Your task to perform on an android device: add a label to a message in the gmail app Image 0: 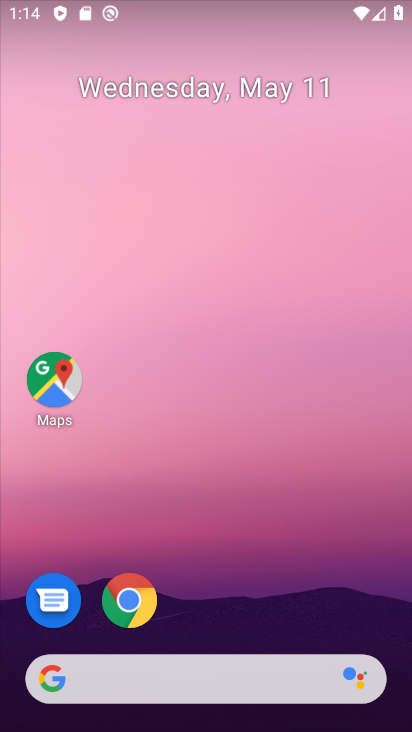
Step 0: drag from (234, 624) to (244, 276)
Your task to perform on an android device: add a label to a message in the gmail app Image 1: 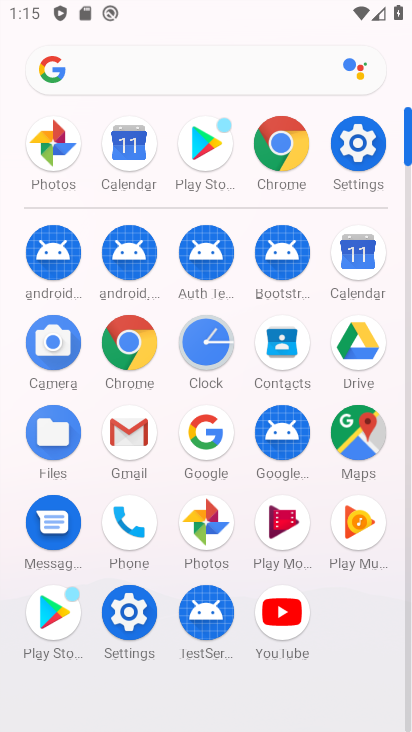
Step 1: click (125, 428)
Your task to perform on an android device: add a label to a message in the gmail app Image 2: 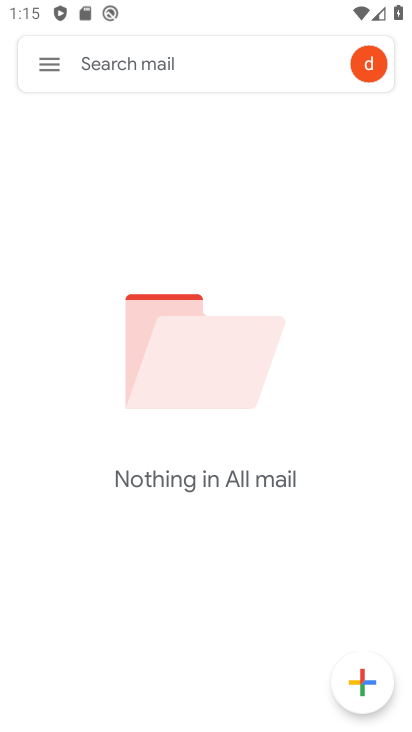
Step 2: click (46, 65)
Your task to perform on an android device: add a label to a message in the gmail app Image 3: 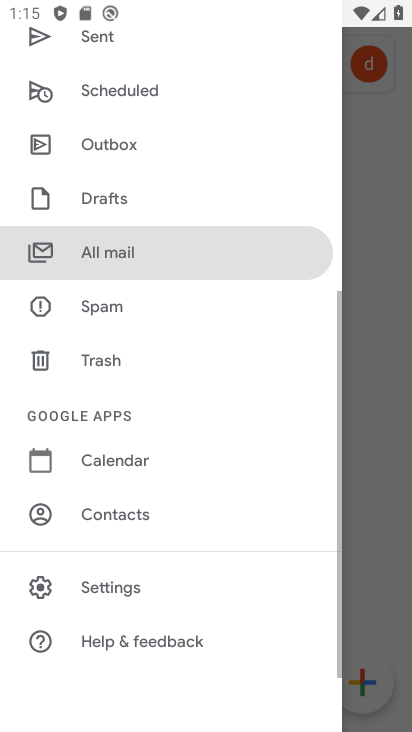
Step 3: click (102, 251)
Your task to perform on an android device: add a label to a message in the gmail app Image 4: 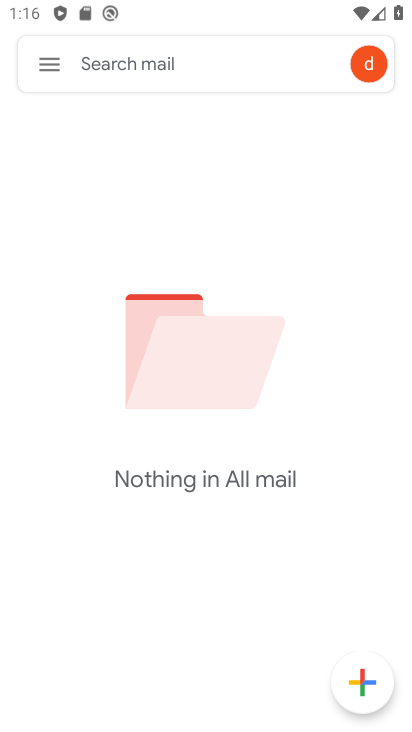
Step 4: task complete